Your task to perform on an android device: Search for pizza restaurants on Maps Image 0: 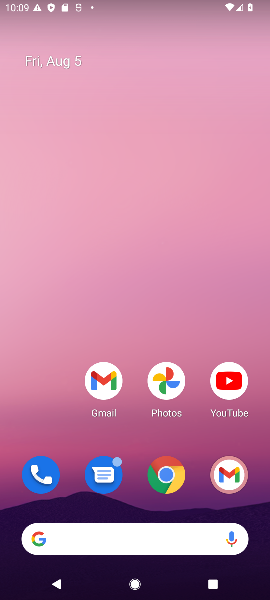
Step 0: drag from (134, 501) to (141, 2)
Your task to perform on an android device: Search for pizza restaurants on Maps Image 1: 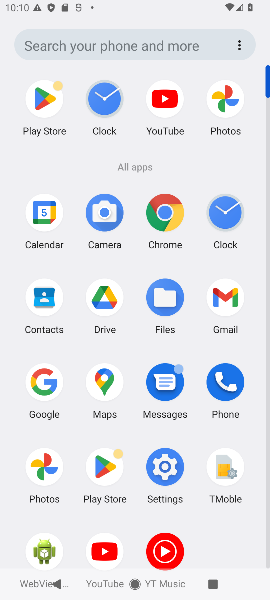
Step 1: click (101, 386)
Your task to perform on an android device: Search for pizza restaurants on Maps Image 2: 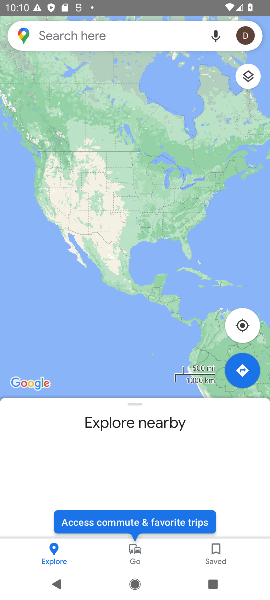
Step 2: click (90, 40)
Your task to perform on an android device: Search for pizza restaurants on Maps Image 3: 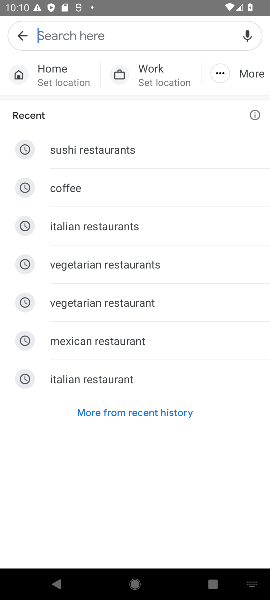
Step 3: type "Pizza restaurants"
Your task to perform on an android device: Search for pizza restaurants on Maps Image 4: 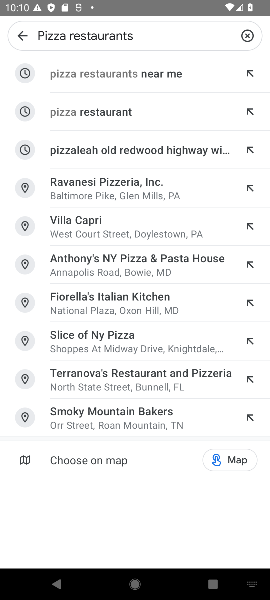
Step 4: click (101, 107)
Your task to perform on an android device: Search for pizza restaurants on Maps Image 5: 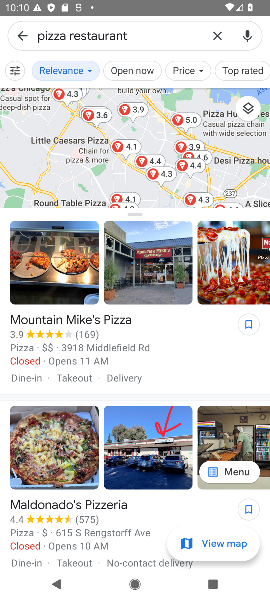
Step 5: task complete